Your task to perform on an android device: Search for the new Nintendo switch on Best Buy Image 0: 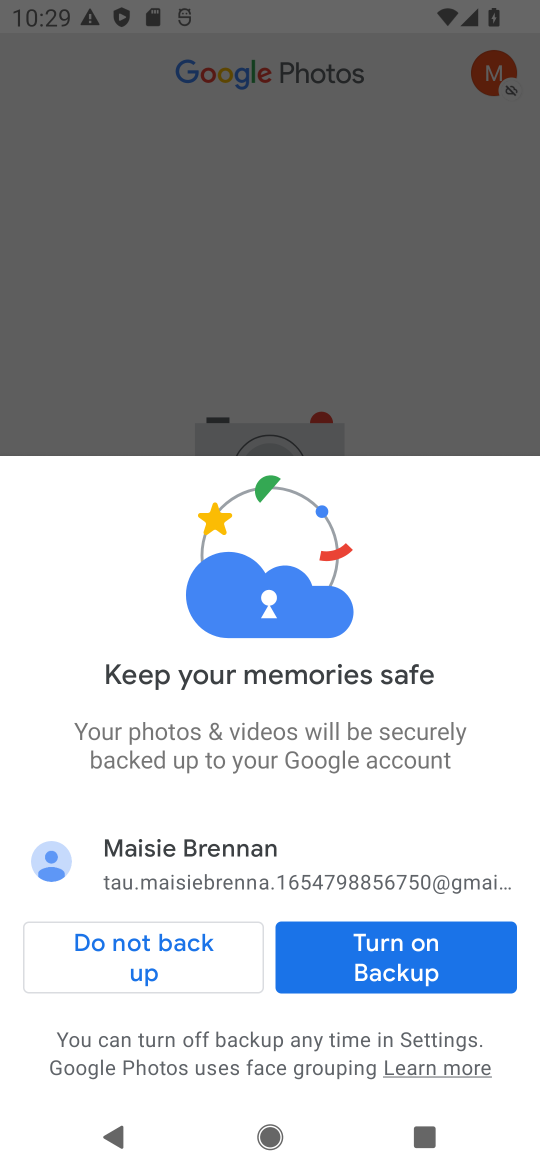
Step 0: press home button
Your task to perform on an android device: Search for the new Nintendo switch on Best Buy Image 1: 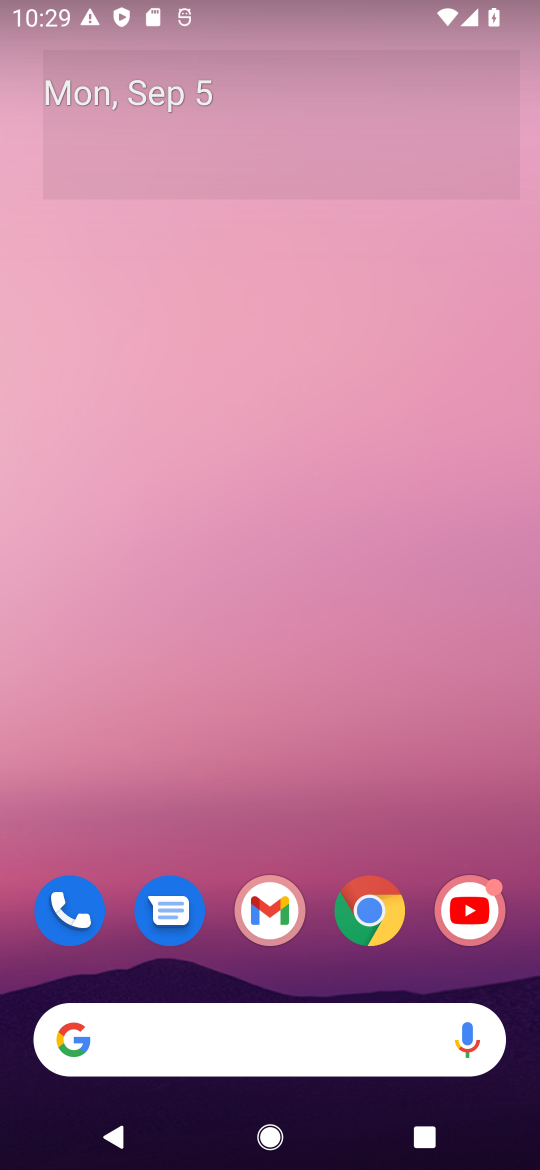
Step 1: click (373, 876)
Your task to perform on an android device: Search for the new Nintendo switch on Best Buy Image 2: 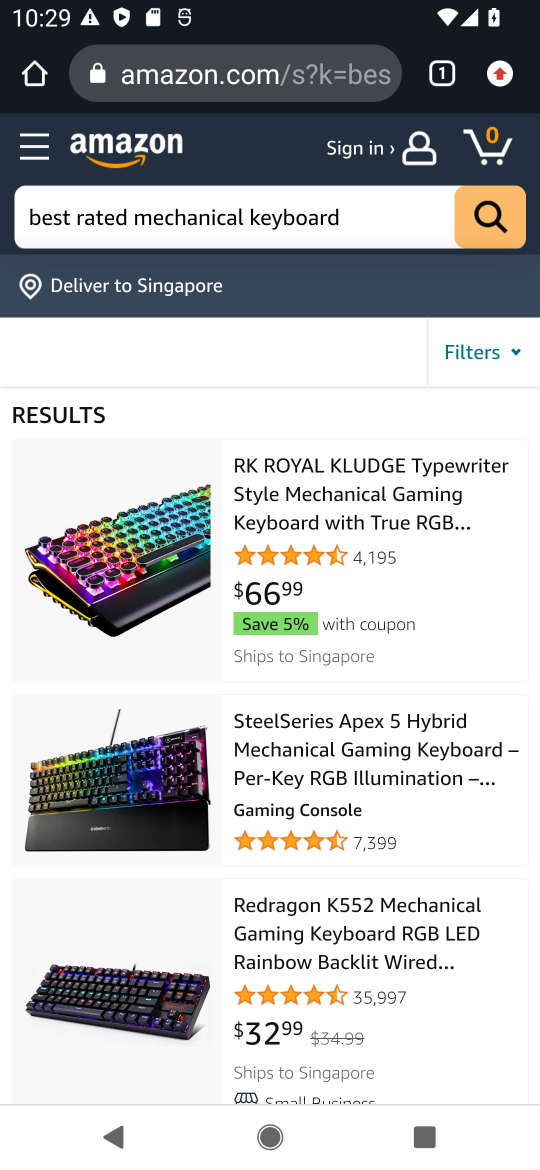
Step 2: click (299, 89)
Your task to perform on an android device: Search for the new Nintendo switch on Best Buy Image 3: 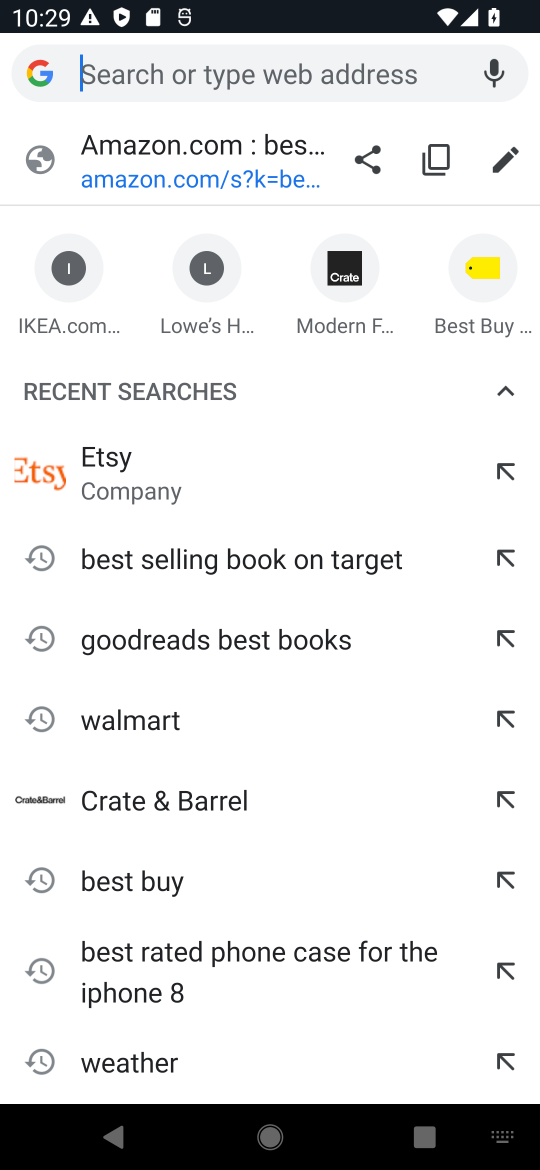
Step 3: type "bestbuy"
Your task to perform on an android device: Search for the new Nintendo switch on Best Buy Image 4: 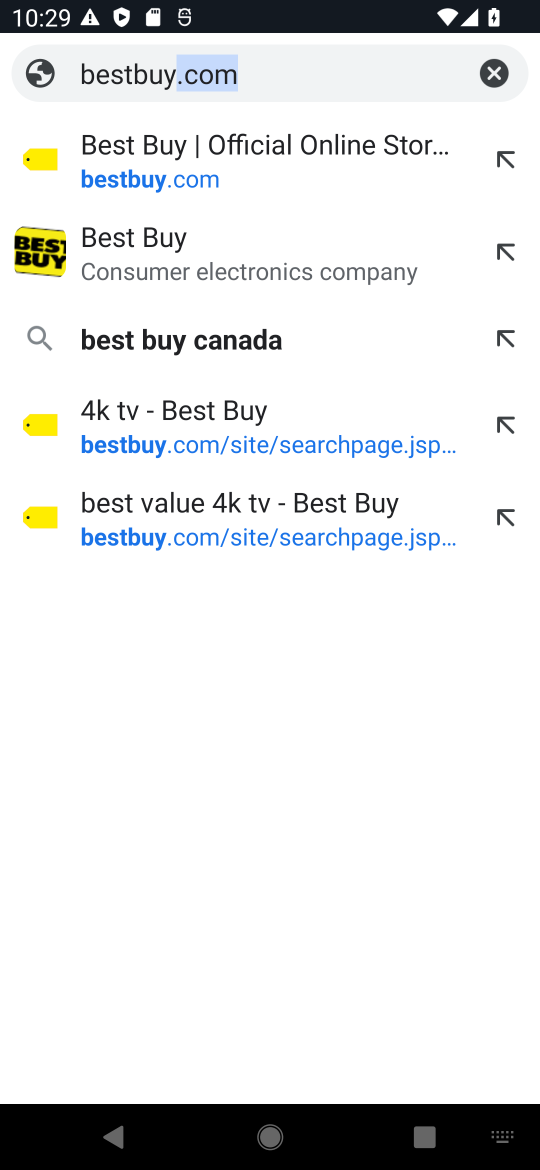
Step 4: click (324, 175)
Your task to perform on an android device: Search for the new Nintendo switch on Best Buy Image 5: 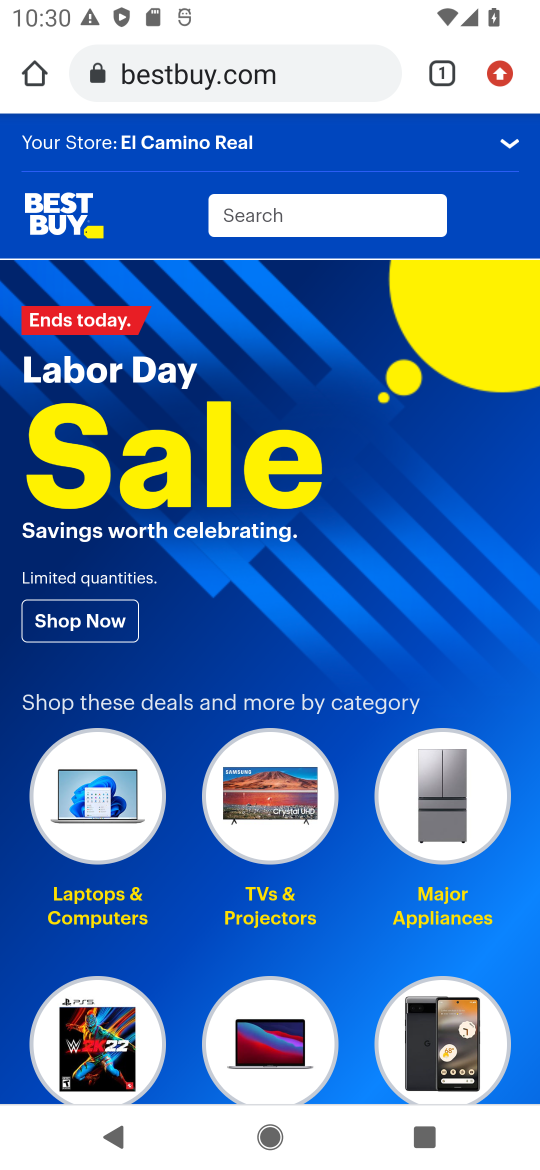
Step 5: click (333, 227)
Your task to perform on an android device: Search for the new Nintendo switch on Best Buy Image 6: 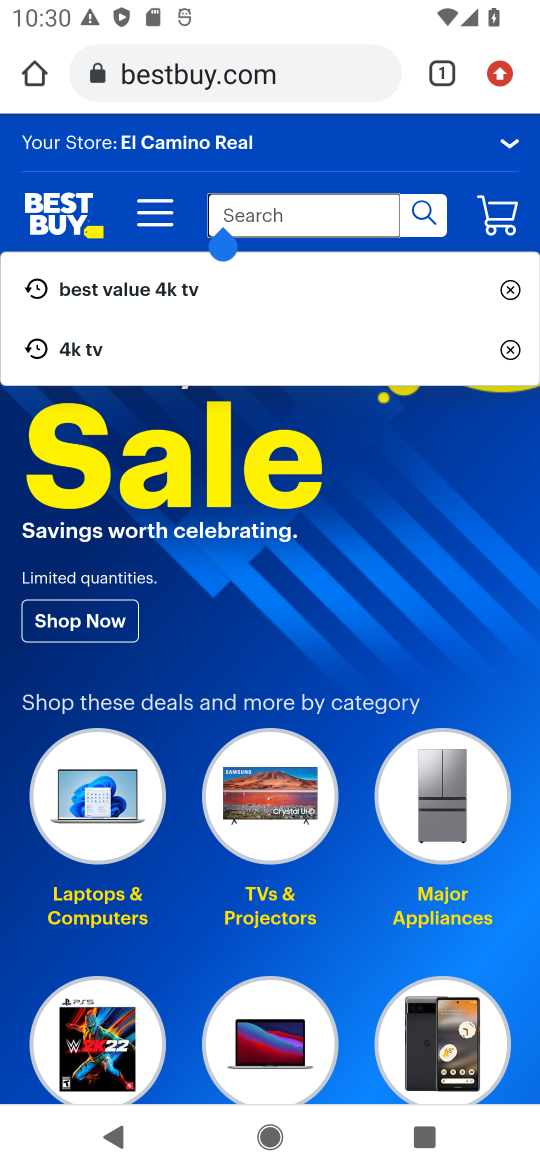
Step 6: type "nintendo switch"
Your task to perform on an android device: Search for the new Nintendo switch on Best Buy Image 7: 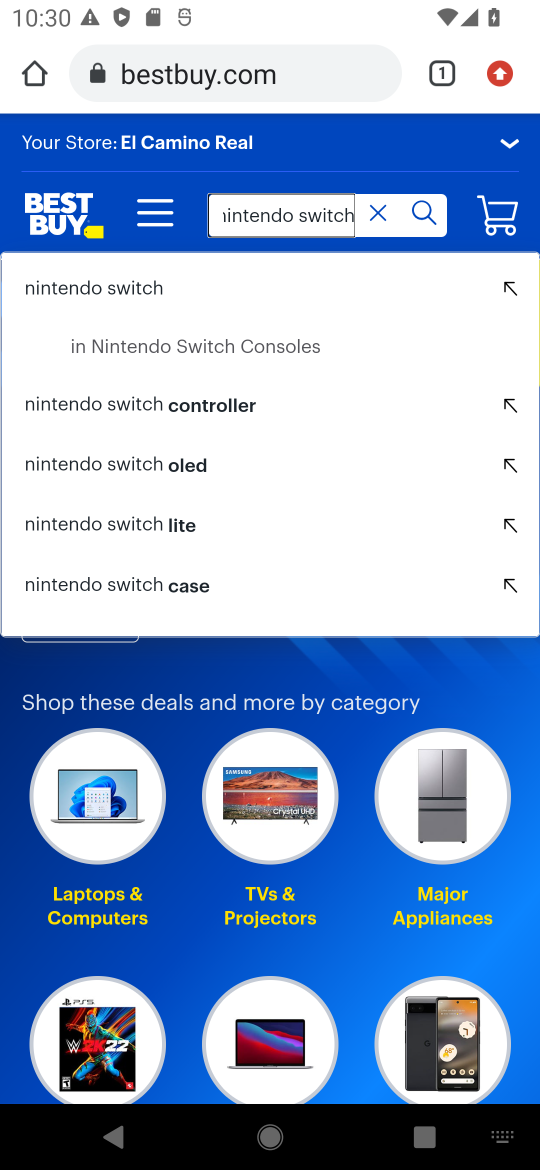
Step 7: click (183, 283)
Your task to perform on an android device: Search for the new Nintendo switch on Best Buy Image 8: 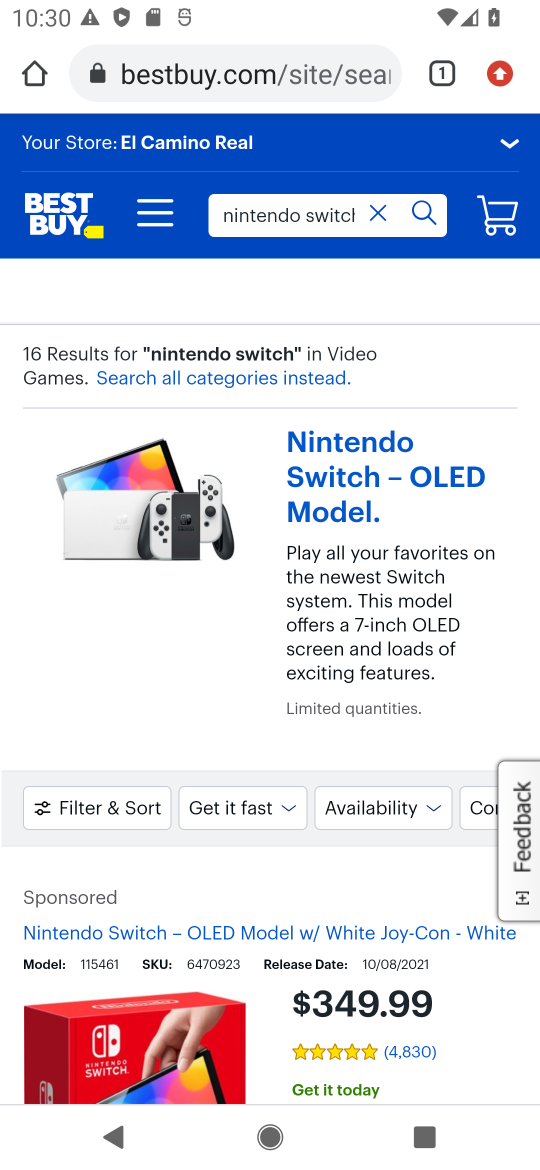
Step 8: task complete